Your task to perform on an android device: open app "Lyft - Rideshare, Bikes, Scooters & Transit" Image 0: 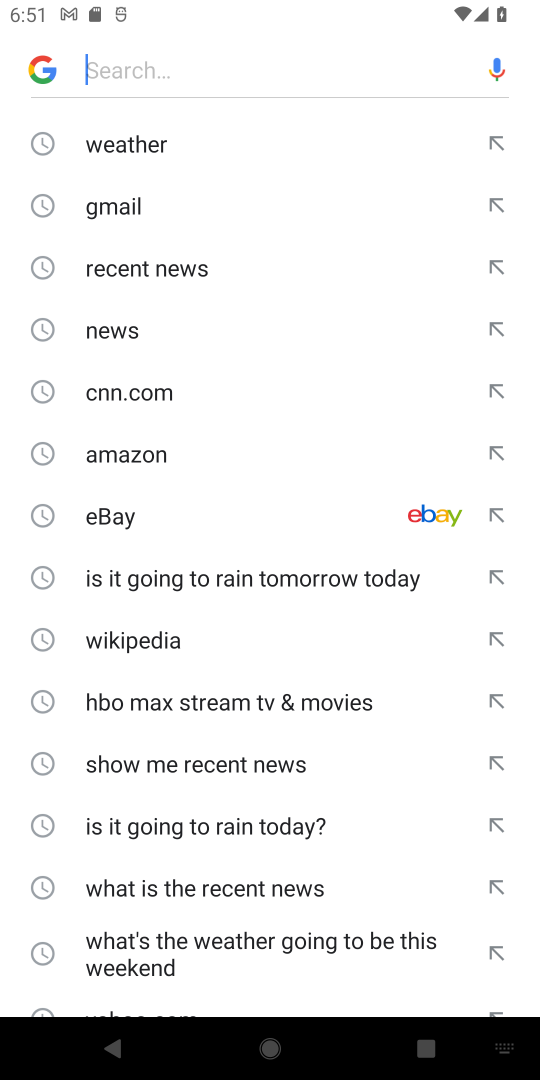
Step 0: press home button
Your task to perform on an android device: open app "Lyft - Rideshare, Bikes, Scooters & Transit" Image 1: 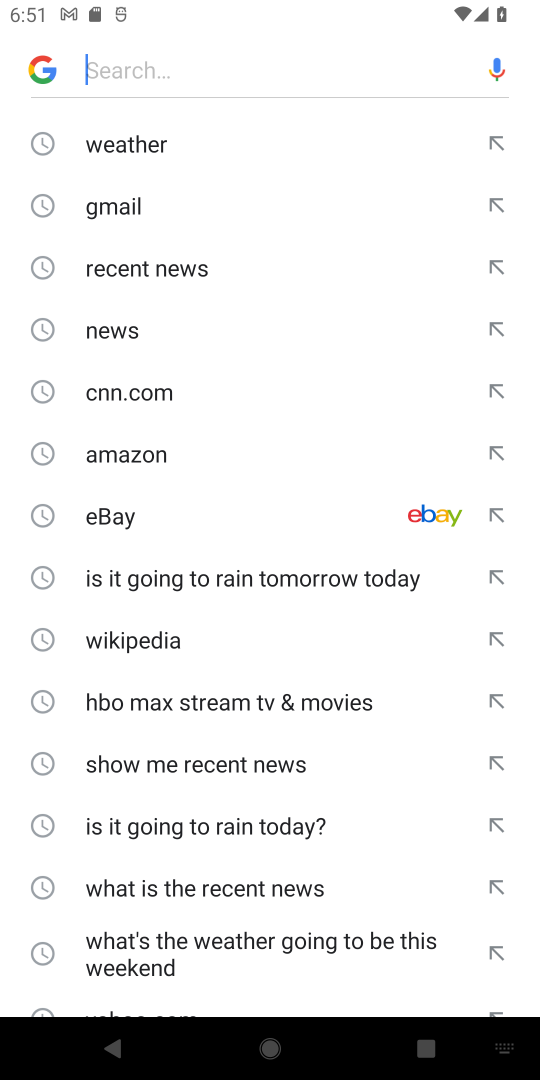
Step 1: press home button
Your task to perform on an android device: open app "Lyft - Rideshare, Bikes, Scooters & Transit" Image 2: 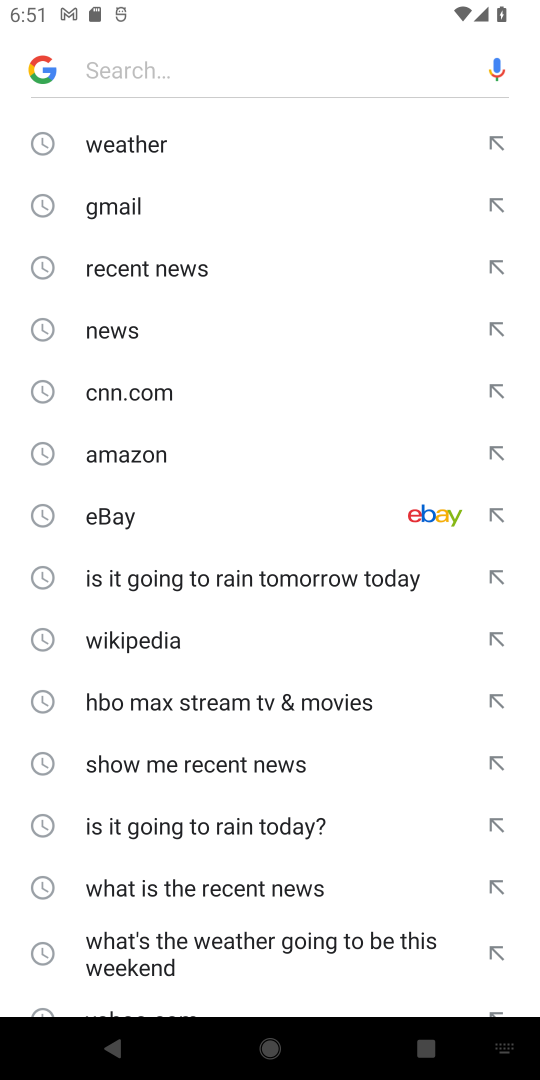
Step 2: press home button
Your task to perform on an android device: open app "Lyft - Rideshare, Bikes, Scooters & Transit" Image 3: 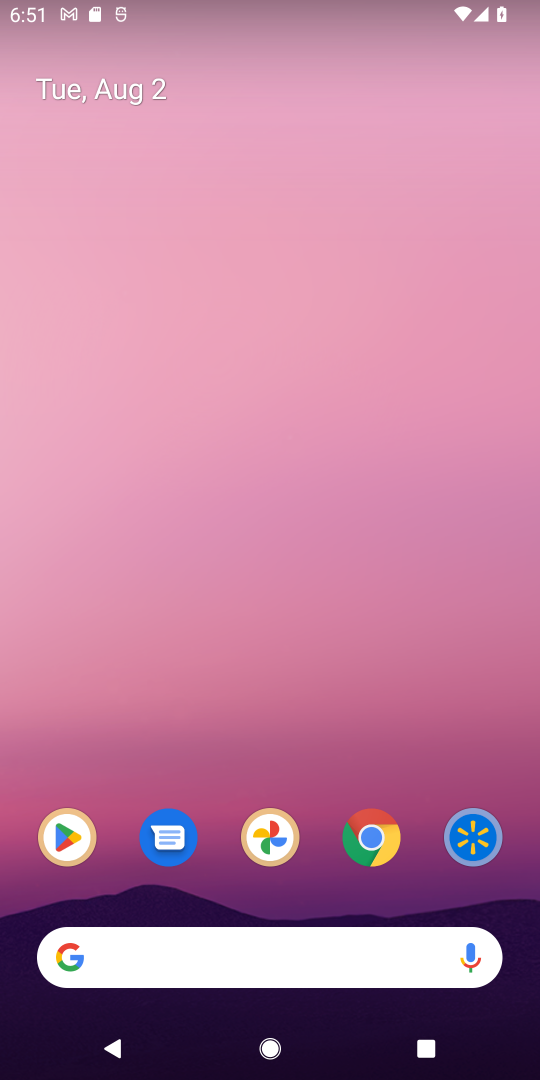
Step 3: drag from (309, 945) to (331, 368)
Your task to perform on an android device: open app "Lyft - Rideshare, Bikes, Scooters & Transit" Image 4: 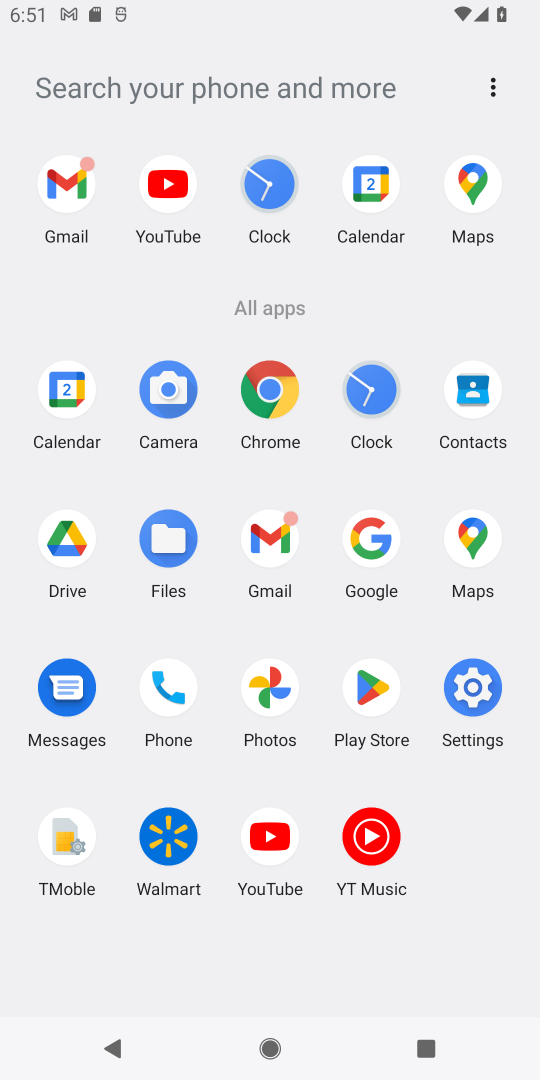
Step 4: drag from (313, 897) to (375, 413)
Your task to perform on an android device: open app "Lyft - Rideshare, Bikes, Scooters & Transit" Image 5: 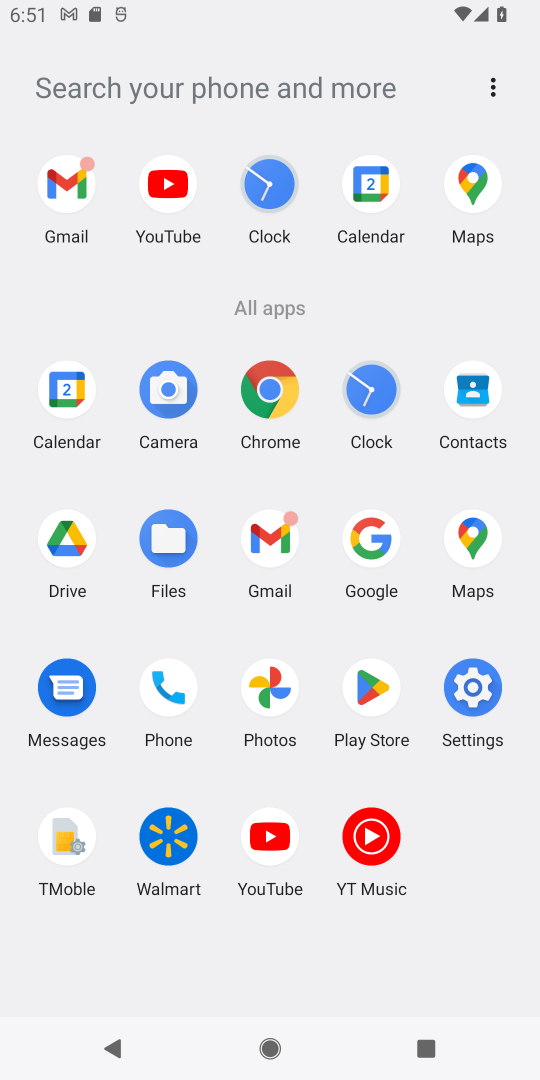
Step 5: drag from (292, 880) to (328, 398)
Your task to perform on an android device: open app "Lyft - Rideshare, Bikes, Scooters & Transit" Image 6: 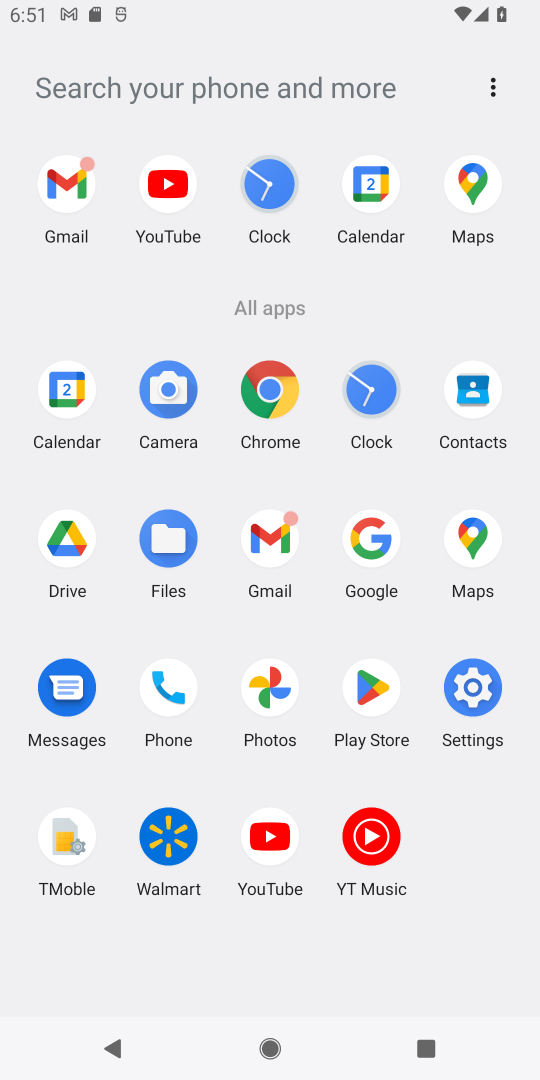
Step 6: click (374, 684)
Your task to perform on an android device: open app "Lyft - Rideshare, Bikes, Scooters & Transit" Image 7: 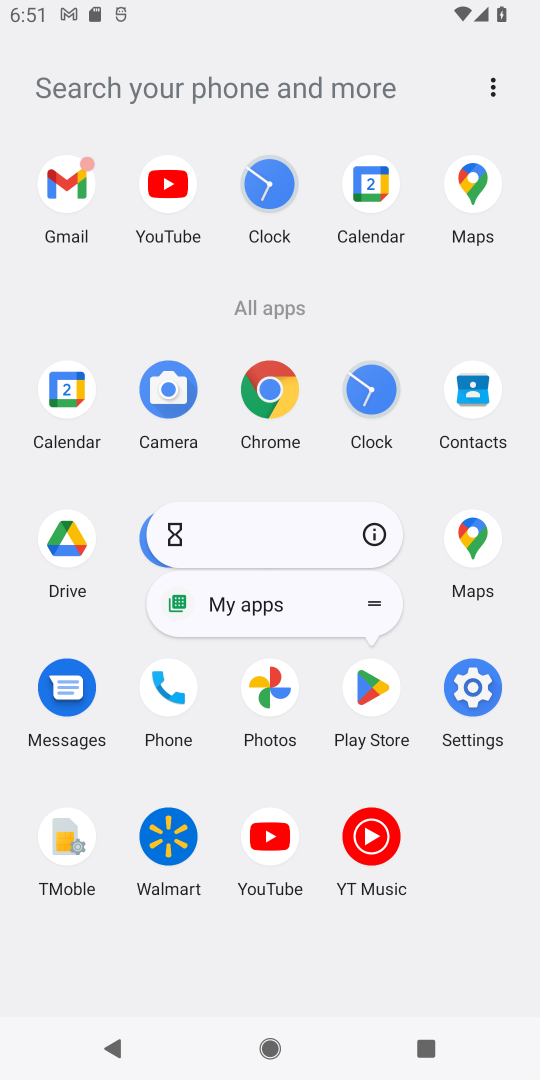
Step 7: click (379, 521)
Your task to perform on an android device: open app "Lyft - Rideshare, Bikes, Scooters & Transit" Image 8: 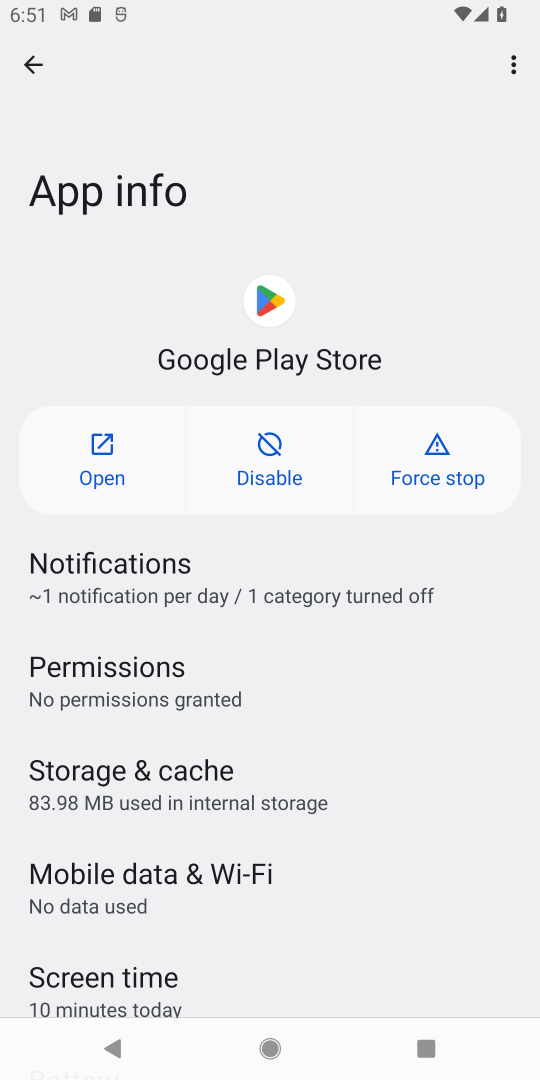
Step 8: click (106, 449)
Your task to perform on an android device: open app "Lyft - Rideshare, Bikes, Scooters & Transit" Image 9: 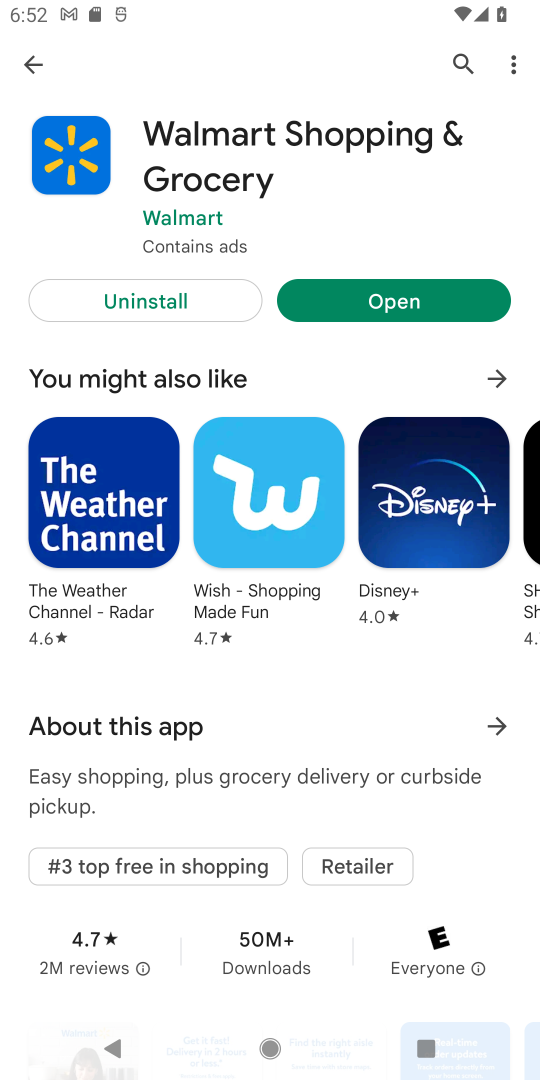
Step 9: drag from (296, 194) to (358, 848)
Your task to perform on an android device: open app "Lyft - Rideshare, Bikes, Scooters & Transit" Image 10: 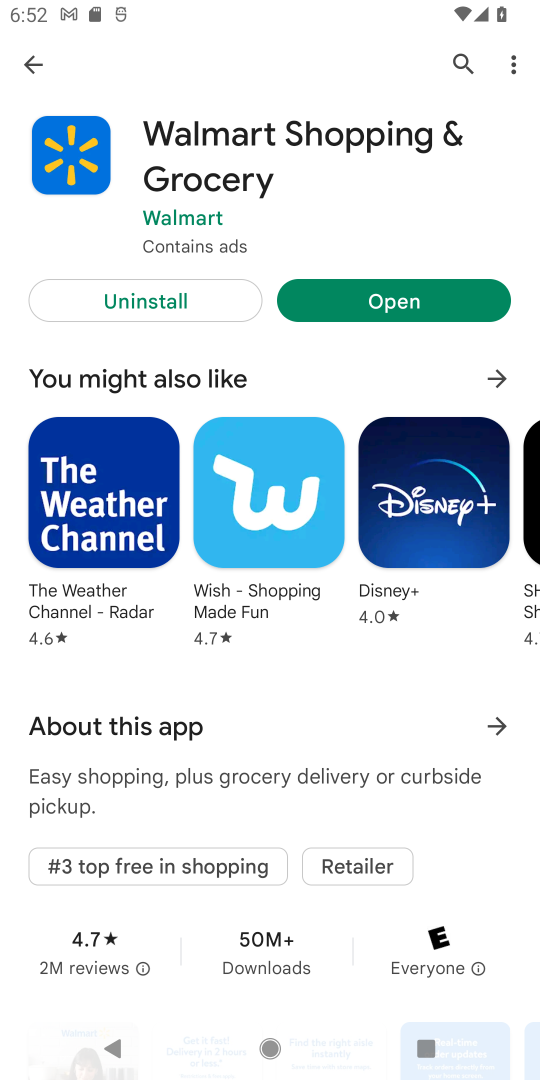
Step 10: drag from (272, 192) to (354, 764)
Your task to perform on an android device: open app "Lyft - Rideshare, Bikes, Scooters & Transit" Image 11: 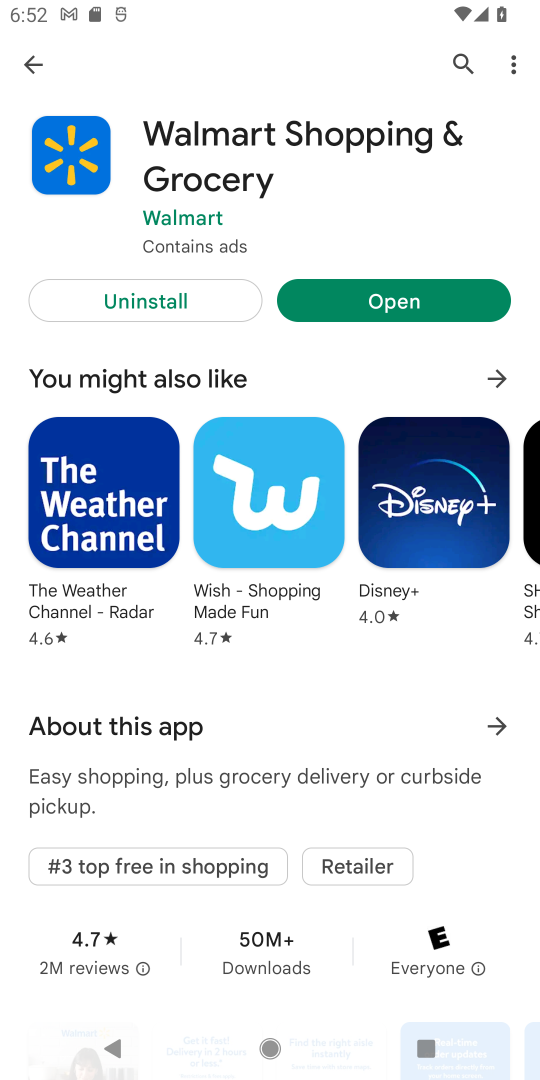
Step 11: drag from (279, 254) to (393, 1059)
Your task to perform on an android device: open app "Lyft - Rideshare, Bikes, Scooters & Transit" Image 12: 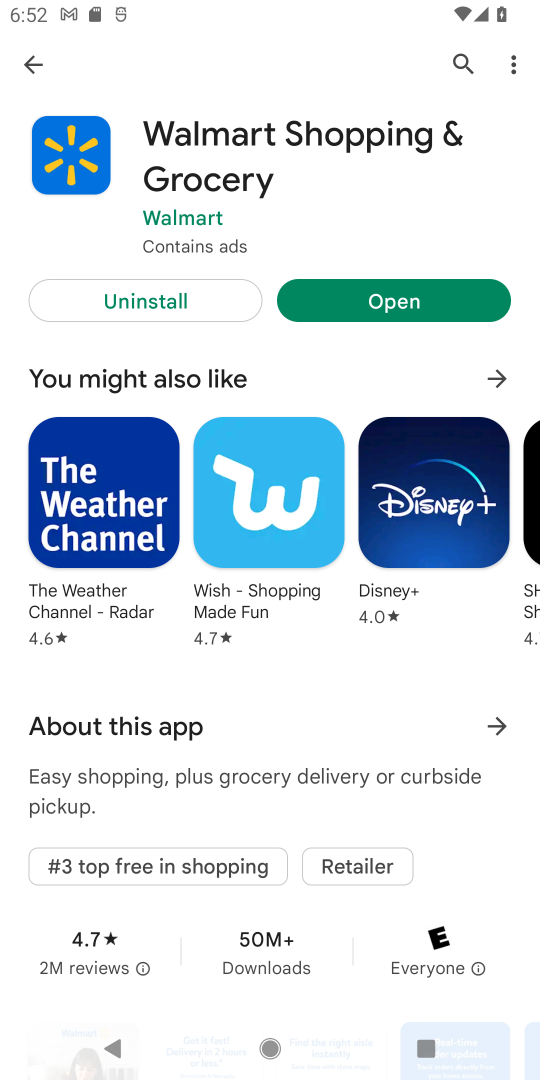
Step 12: click (458, 58)
Your task to perform on an android device: open app "Lyft - Rideshare, Bikes, Scooters & Transit" Image 13: 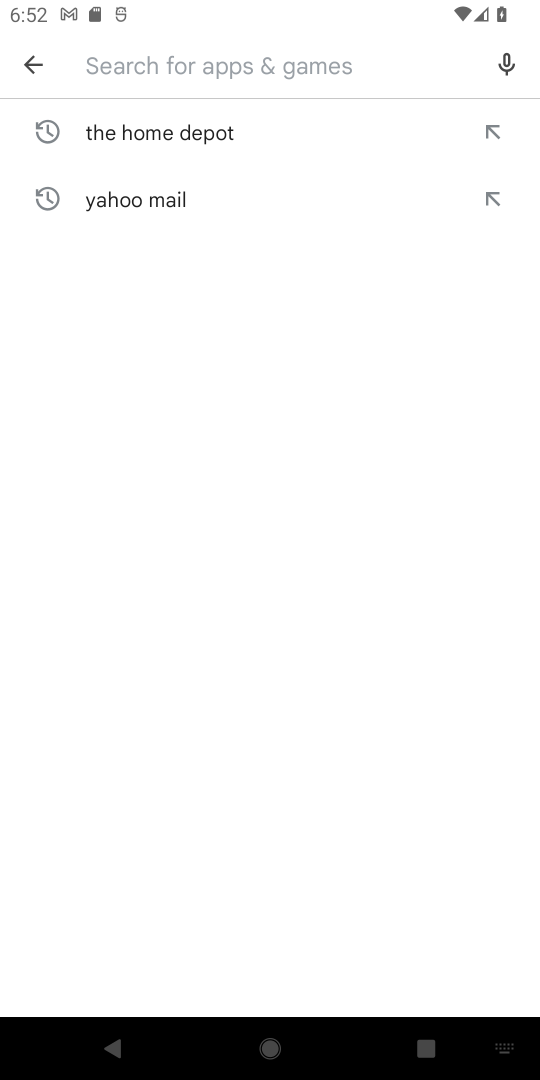
Step 13: type "Lyft - Rideshare, Bikes, Scooters & Transit"
Your task to perform on an android device: open app "Lyft - Rideshare, Bikes, Scooters & Transit" Image 14: 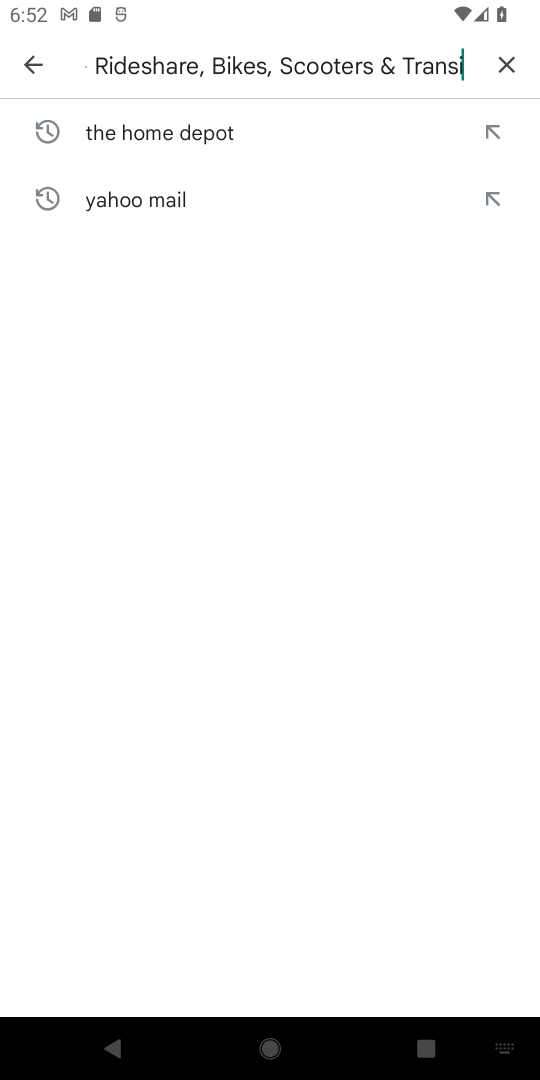
Step 14: type ""
Your task to perform on an android device: open app "Lyft - Rideshare, Bikes, Scooters & Transit" Image 15: 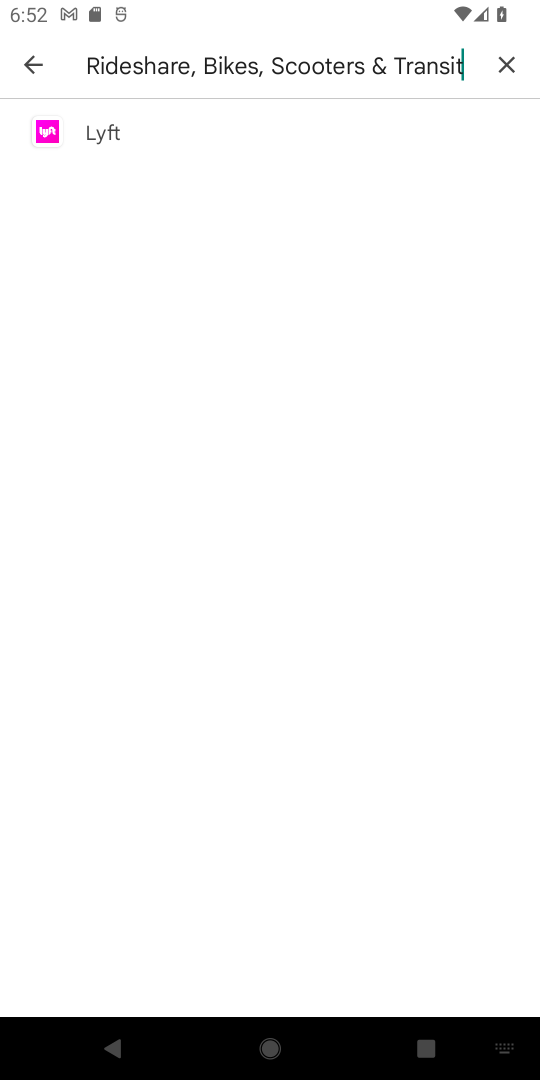
Step 15: click (166, 142)
Your task to perform on an android device: open app "Lyft - Rideshare, Bikes, Scooters & Transit" Image 16: 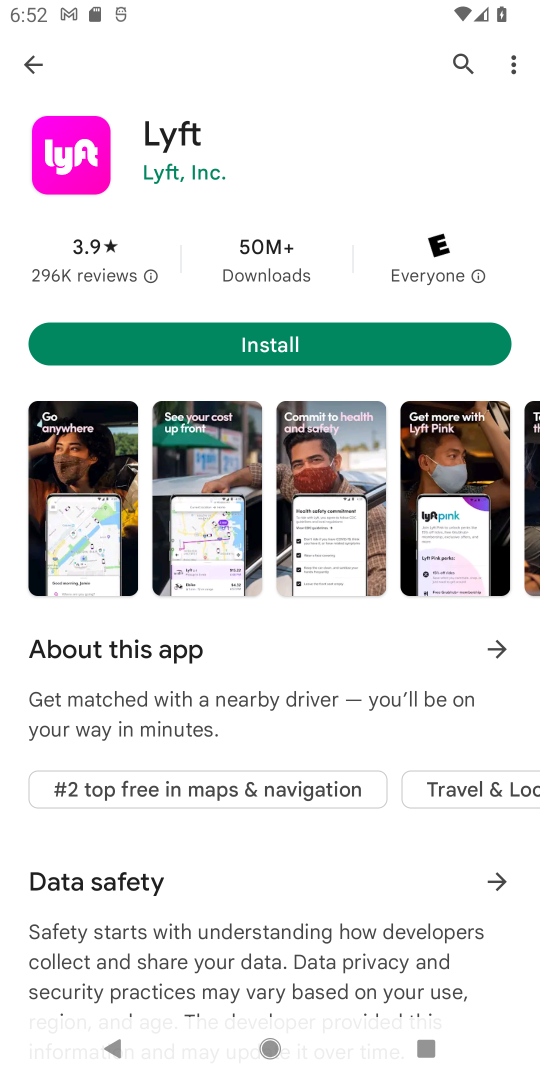
Step 16: drag from (303, 202) to (305, 722)
Your task to perform on an android device: open app "Lyft - Rideshare, Bikes, Scooters & Transit" Image 17: 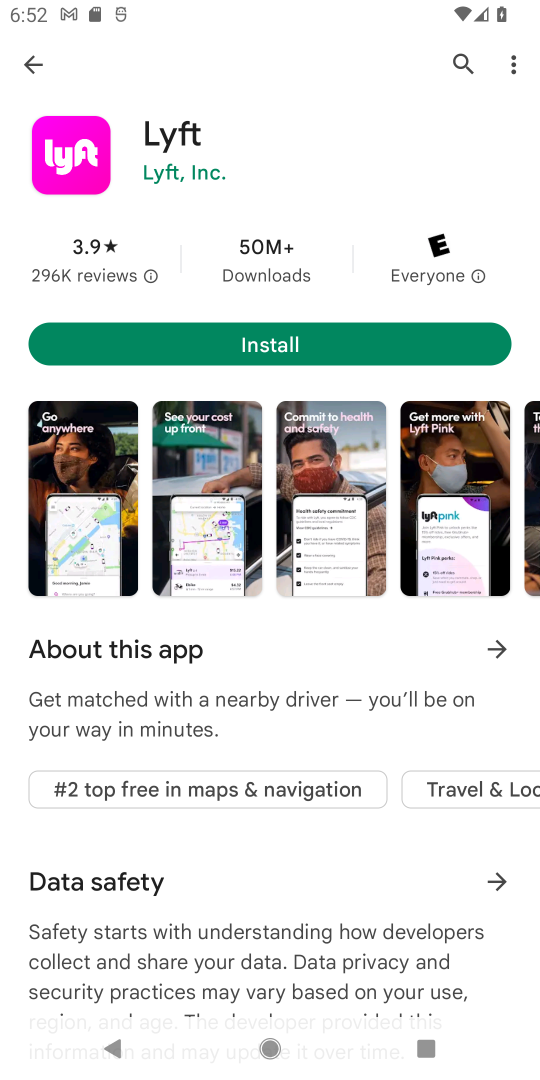
Step 17: drag from (310, 196) to (317, 720)
Your task to perform on an android device: open app "Lyft - Rideshare, Bikes, Scooters & Transit" Image 18: 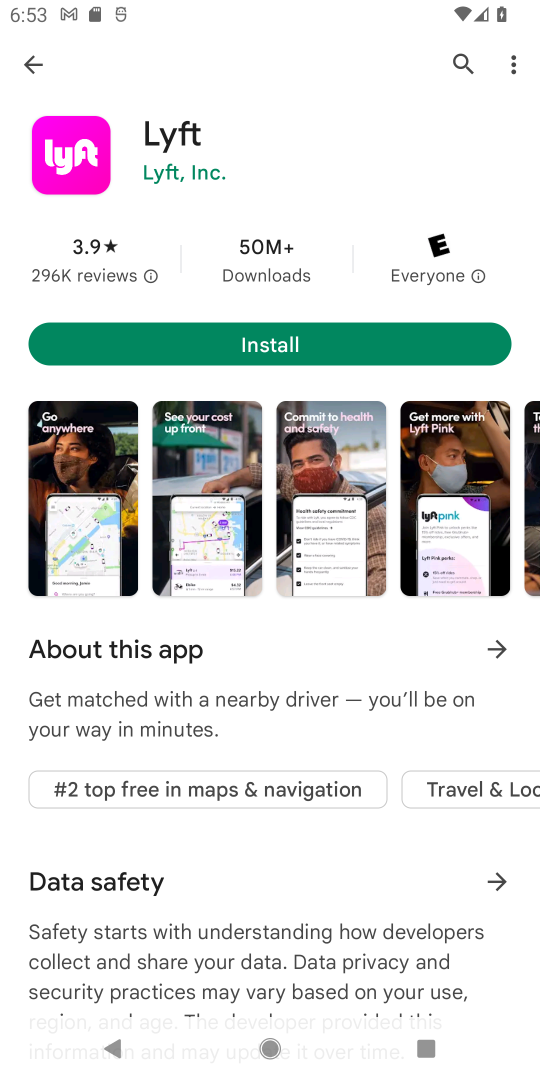
Step 18: drag from (301, 191) to (423, 806)
Your task to perform on an android device: open app "Lyft - Rideshare, Bikes, Scooters & Transit" Image 19: 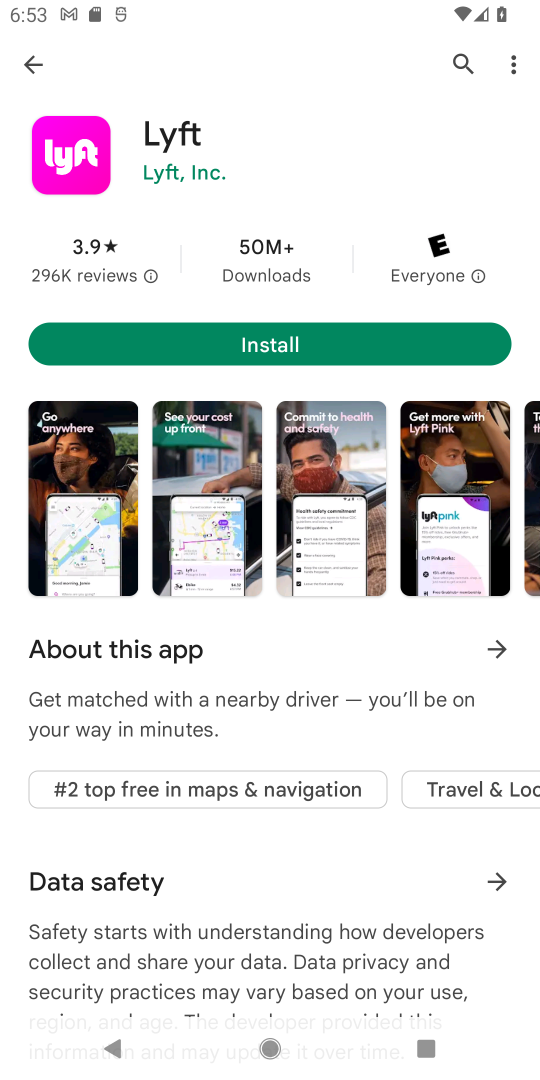
Step 19: drag from (280, 695) to (294, 778)
Your task to perform on an android device: open app "Lyft - Rideshare, Bikes, Scooters & Transit" Image 20: 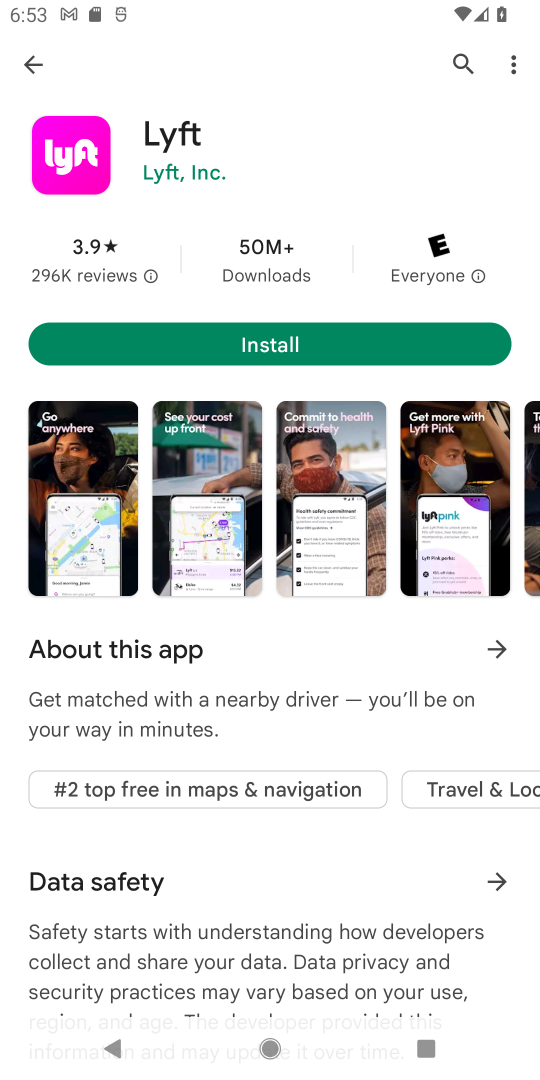
Step 20: drag from (273, 174) to (377, 893)
Your task to perform on an android device: open app "Lyft - Rideshare, Bikes, Scooters & Transit" Image 21: 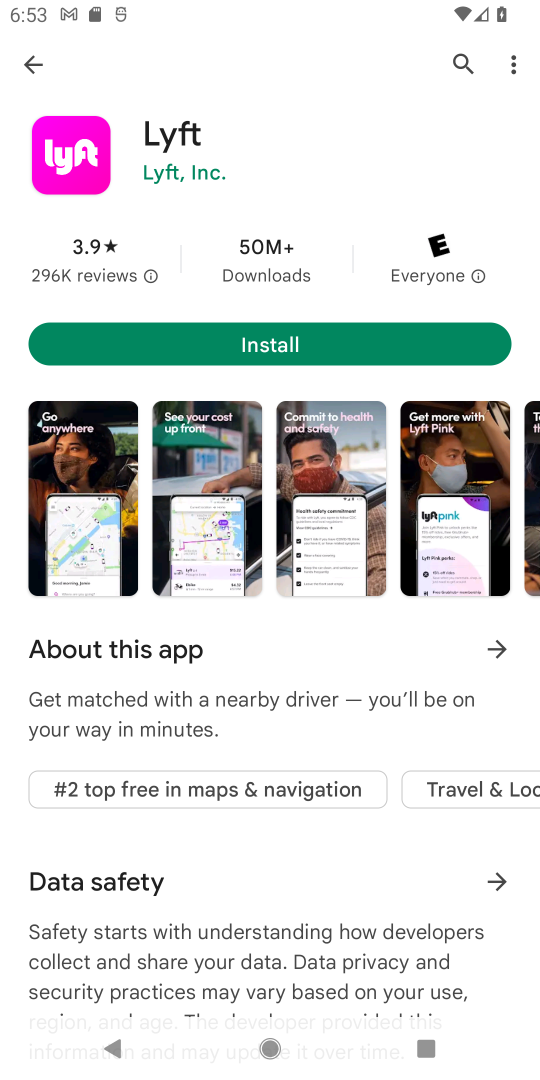
Step 21: drag from (294, 158) to (379, 747)
Your task to perform on an android device: open app "Lyft - Rideshare, Bikes, Scooters & Transit" Image 22: 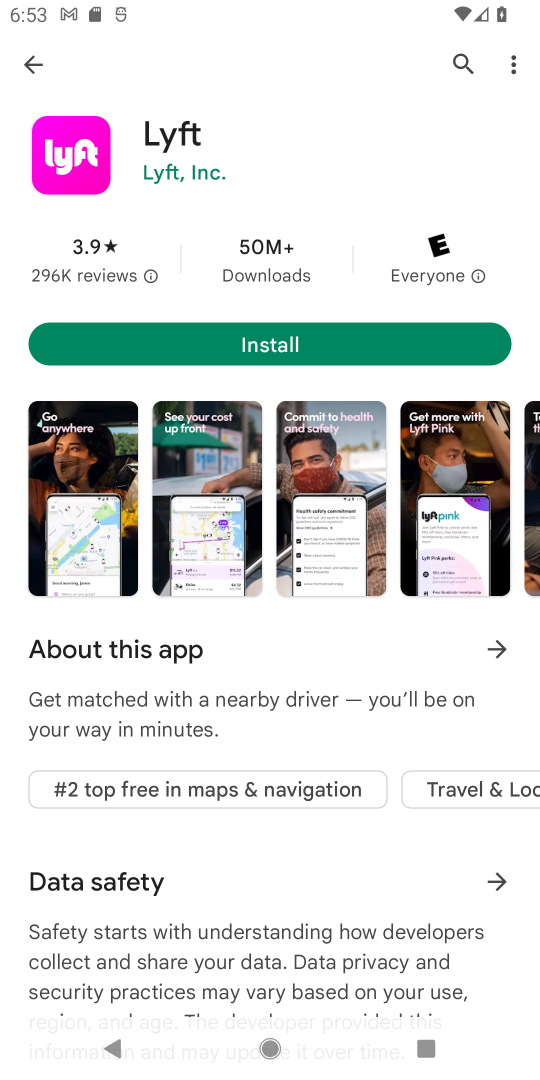
Step 22: drag from (280, 147) to (421, 756)
Your task to perform on an android device: open app "Lyft - Rideshare, Bikes, Scooters & Transit" Image 23: 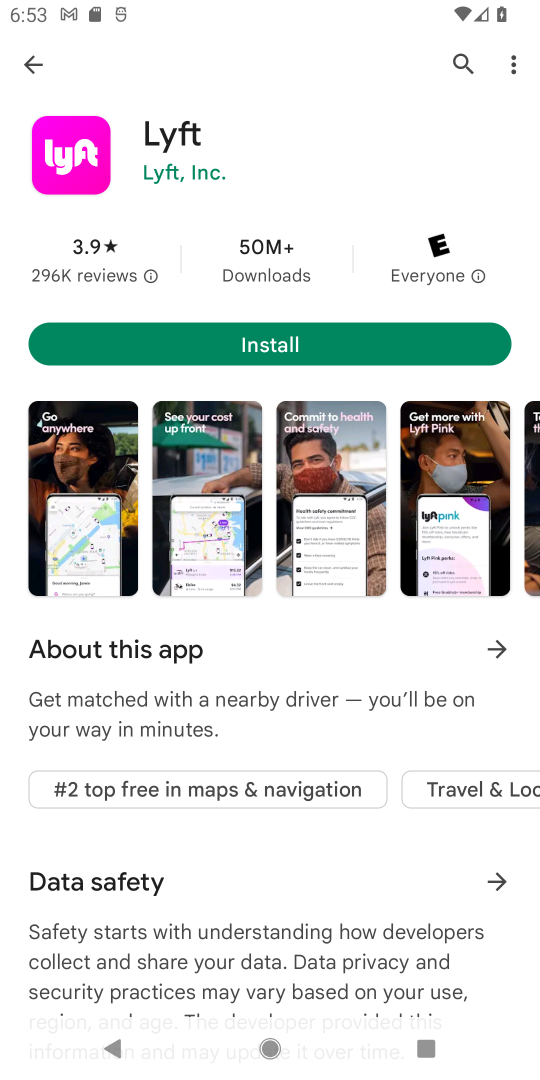
Step 23: click (397, 823)
Your task to perform on an android device: open app "Lyft - Rideshare, Bikes, Scooters & Transit" Image 24: 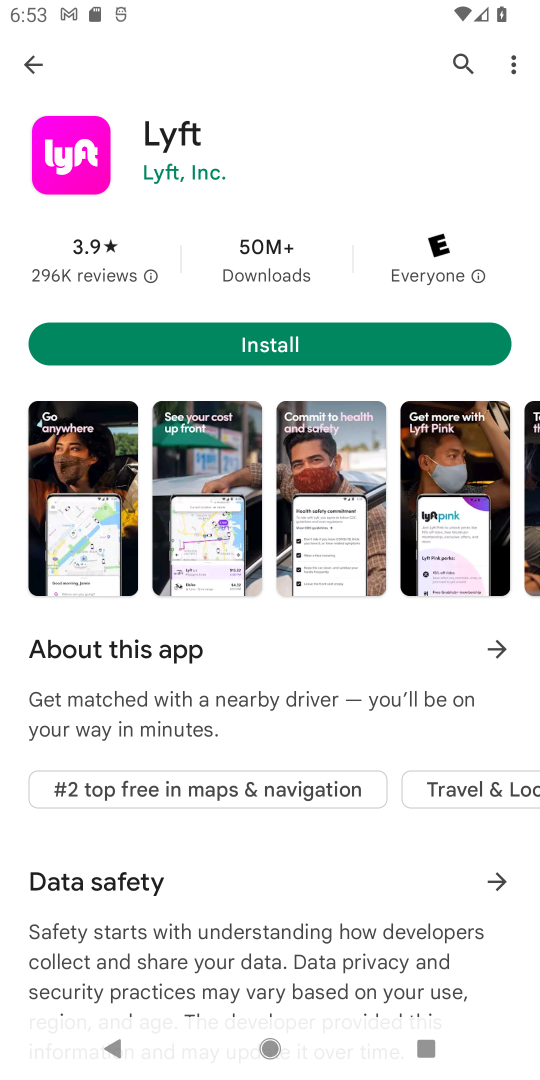
Step 24: task complete